Your task to perform on an android device: Open the map Image 0: 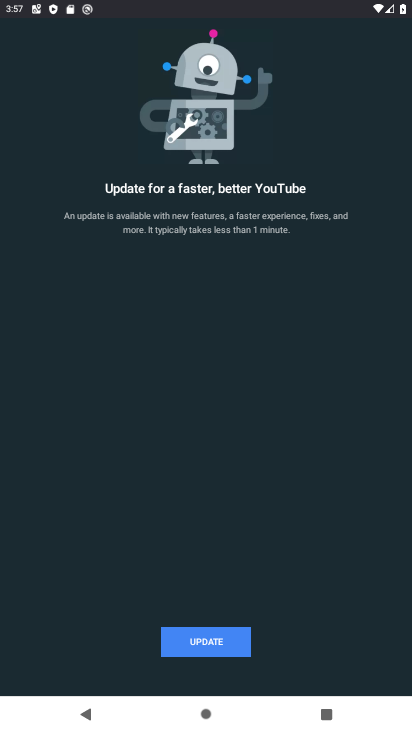
Step 0: press home button
Your task to perform on an android device: Open the map Image 1: 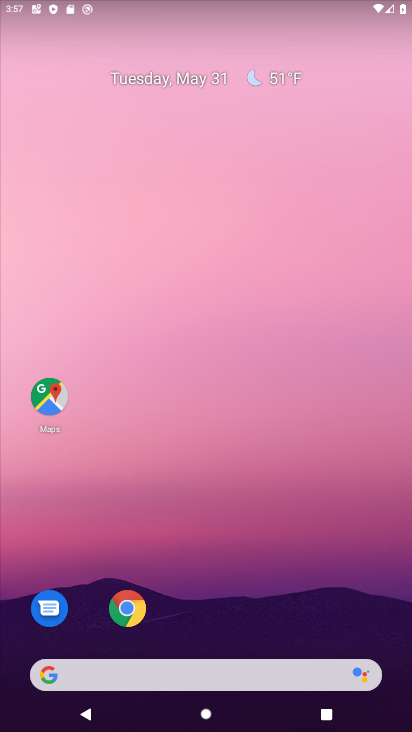
Step 1: click (37, 385)
Your task to perform on an android device: Open the map Image 2: 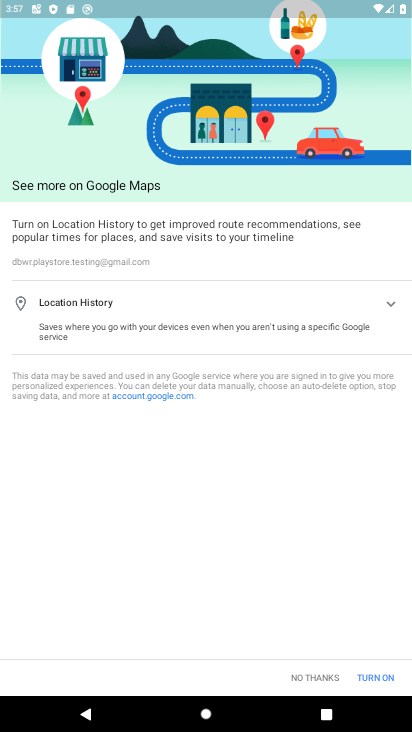
Step 2: task complete